Your task to perform on an android device: search for starred emails in the gmail app Image 0: 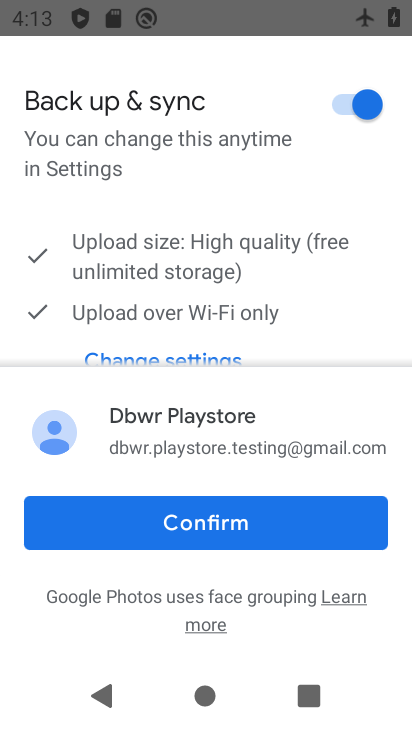
Step 0: press home button
Your task to perform on an android device: search for starred emails in the gmail app Image 1: 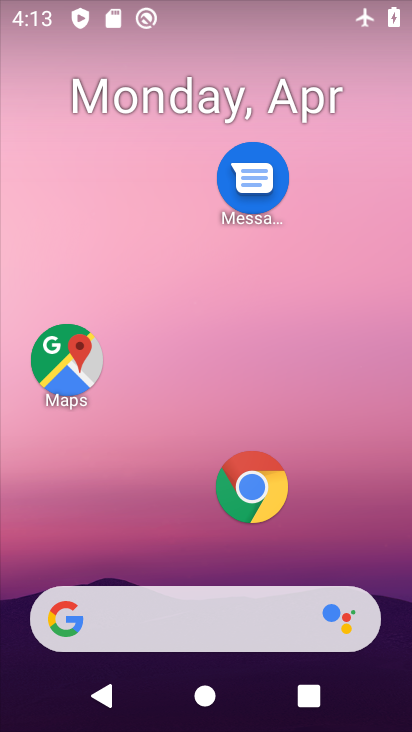
Step 1: drag from (134, 535) to (235, 27)
Your task to perform on an android device: search for starred emails in the gmail app Image 2: 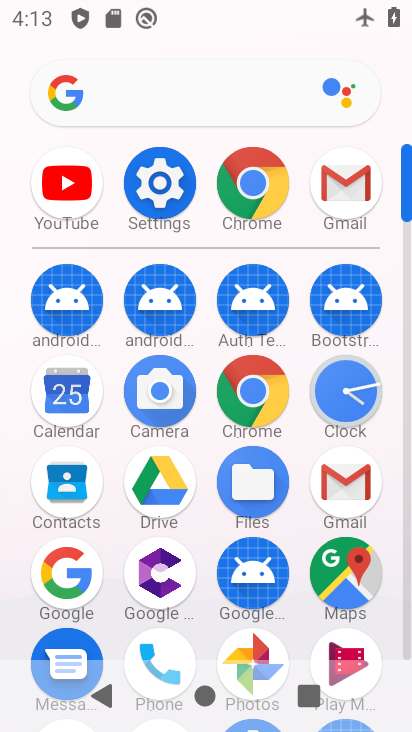
Step 2: click (346, 476)
Your task to perform on an android device: search for starred emails in the gmail app Image 3: 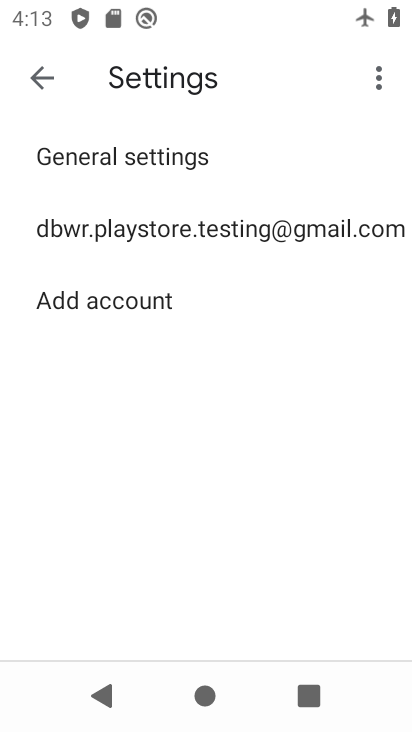
Step 3: click (44, 66)
Your task to perform on an android device: search for starred emails in the gmail app Image 4: 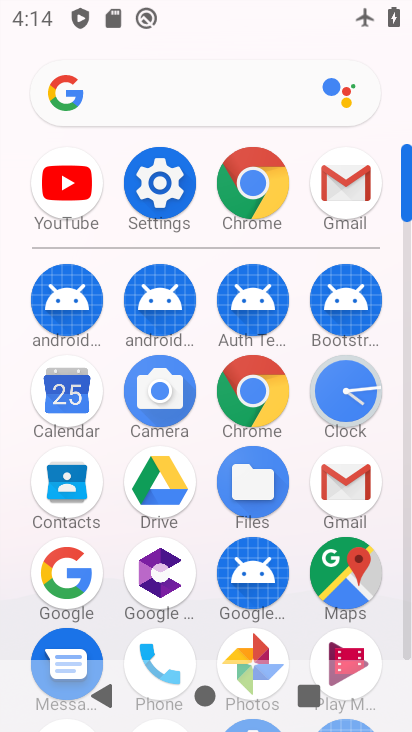
Step 4: click (356, 473)
Your task to perform on an android device: search for starred emails in the gmail app Image 5: 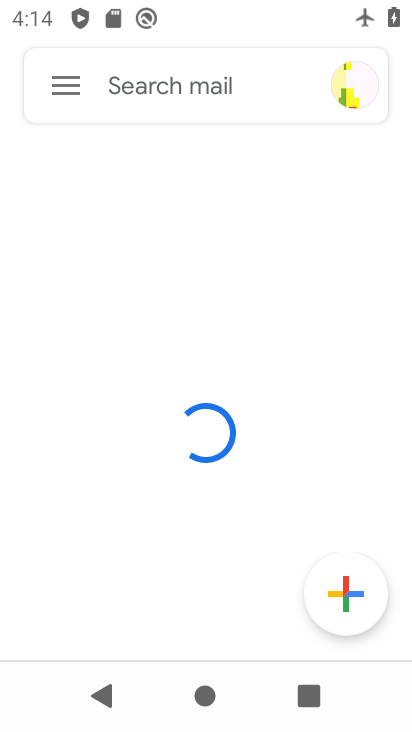
Step 5: click (67, 81)
Your task to perform on an android device: search for starred emails in the gmail app Image 6: 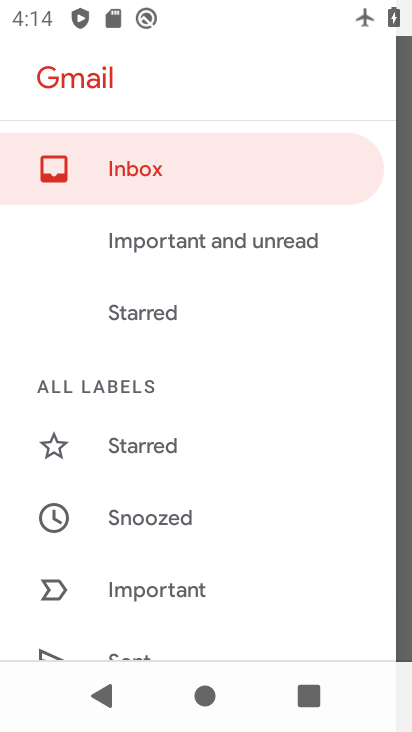
Step 6: click (135, 449)
Your task to perform on an android device: search for starred emails in the gmail app Image 7: 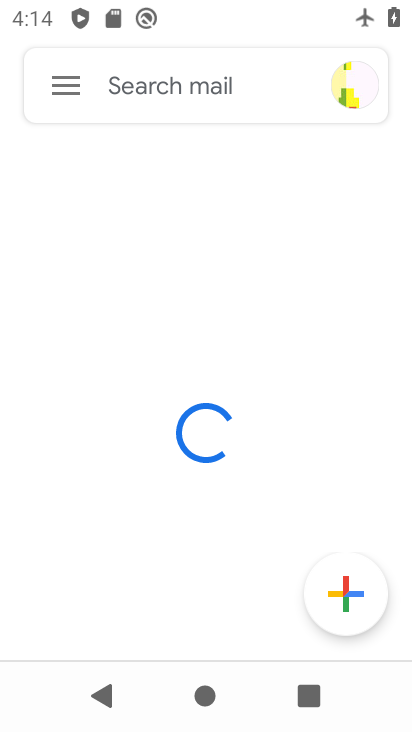
Step 7: task complete